Your task to perform on an android device: toggle priority inbox in the gmail app Image 0: 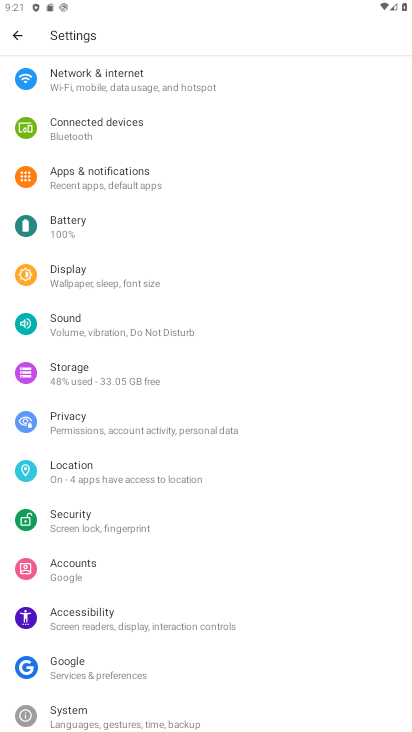
Step 0: press home button
Your task to perform on an android device: toggle priority inbox in the gmail app Image 1: 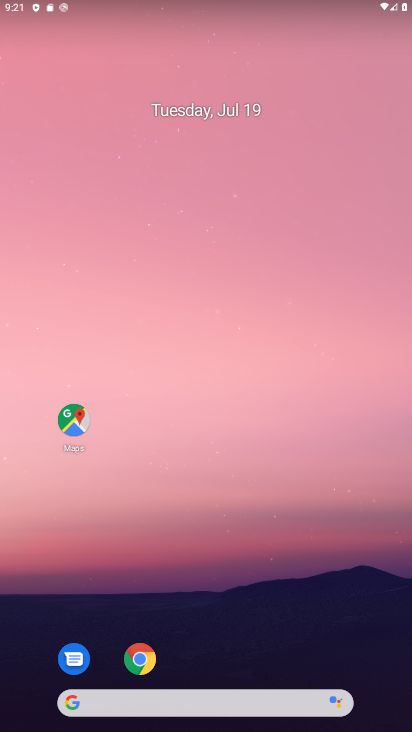
Step 1: drag from (285, 632) to (190, 39)
Your task to perform on an android device: toggle priority inbox in the gmail app Image 2: 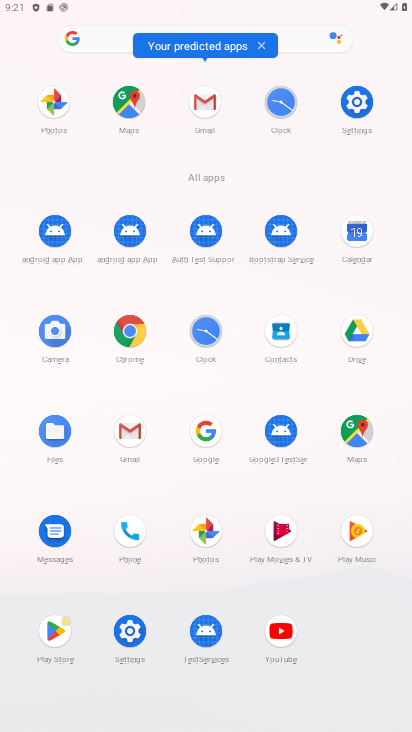
Step 2: click (208, 110)
Your task to perform on an android device: toggle priority inbox in the gmail app Image 3: 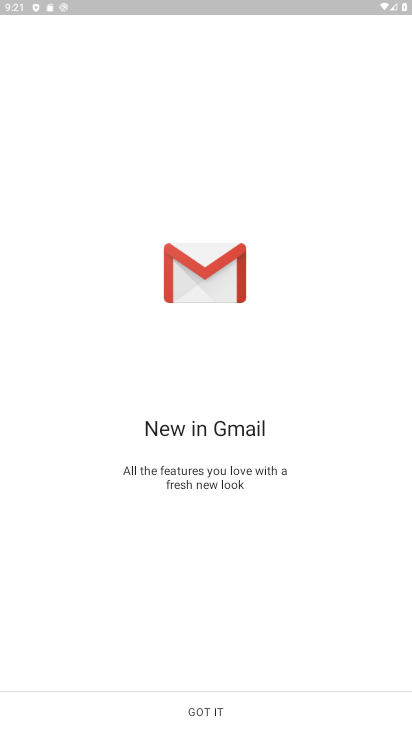
Step 3: click (188, 716)
Your task to perform on an android device: toggle priority inbox in the gmail app Image 4: 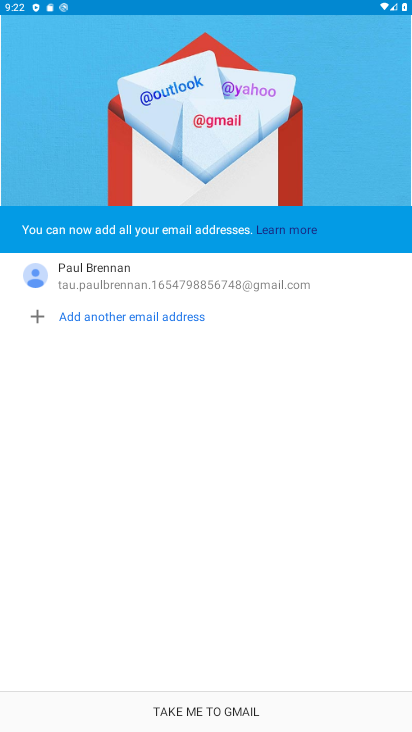
Step 4: click (202, 716)
Your task to perform on an android device: toggle priority inbox in the gmail app Image 5: 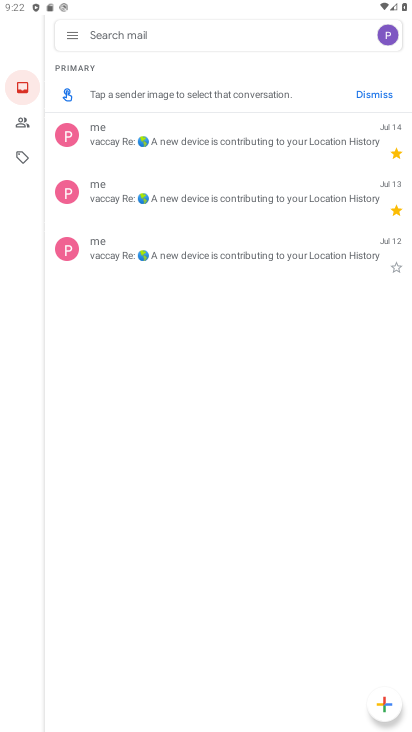
Step 5: click (74, 39)
Your task to perform on an android device: toggle priority inbox in the gmail app Image 6: 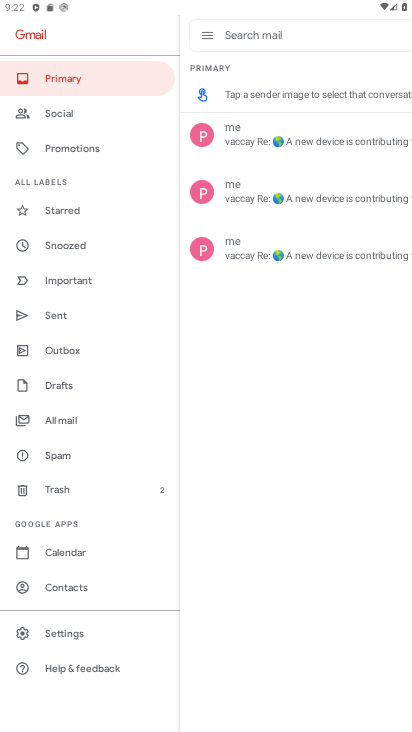
Step 6: click (93, 628)
Your task to perform on an android device: toggle priority inbox in the gmail app Image 7: 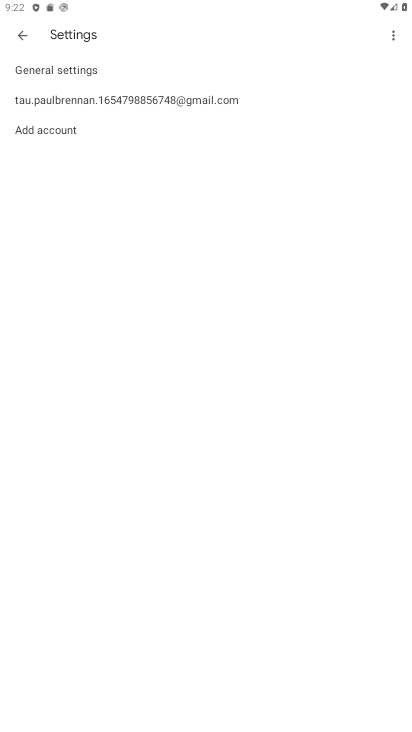
Step 7: click (227, 106)
Your task to perform on an android device: toggle priority inbox in the gmail app Image 8: 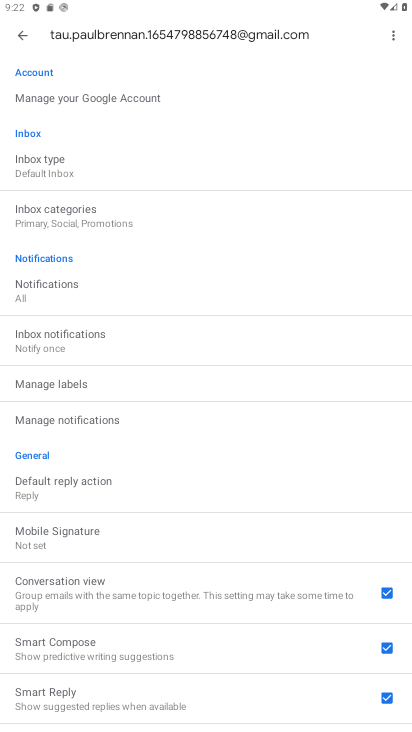
Step 8: click (204, 168)
Your task to perform on an android device: toggle priority inbox in the gmail app Image 9: 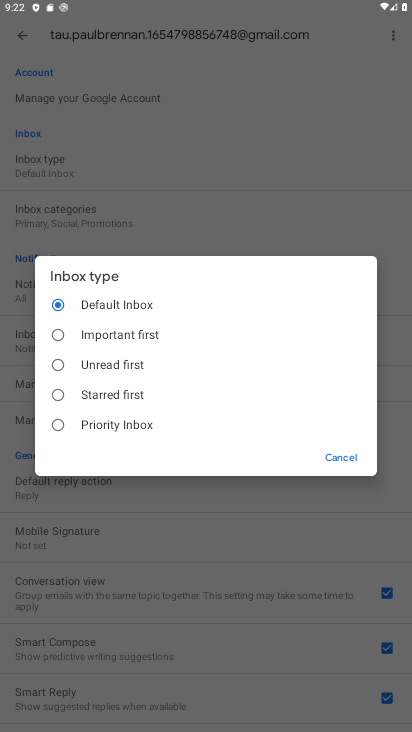
Step 9: click (122, 423)
Your task to perform on an android device: toggle priority inbox in the gmail app Image 10: 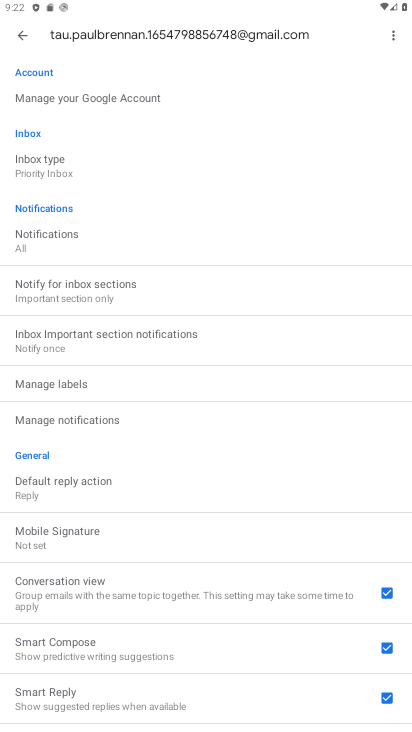
Step 10: task complete